Your task to perform on an android device: Open calendar and show me the third week of next month Image 0: 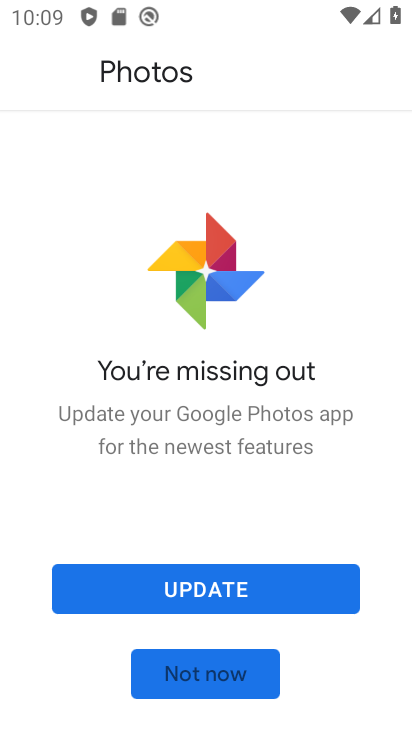
Step 0: press home button
Your task to perform on an android device: Open calendar and show me the third week of next month Image 1: 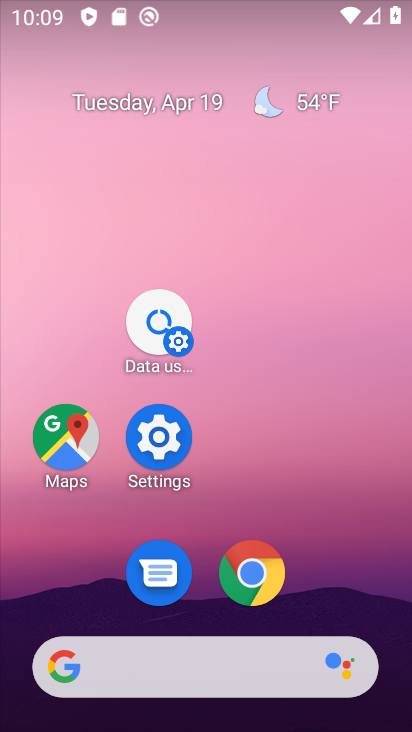
Step 1: drag from (397, 613) to (367, 3)
Your task to perform on an android device: Open calendar and show me the third week of next month Image 2: 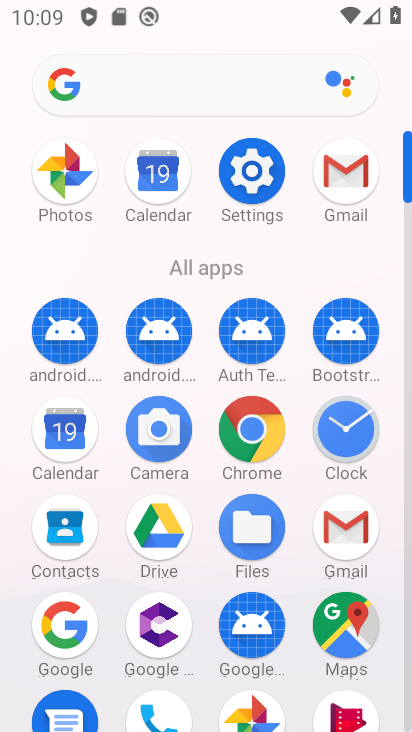
Step 2: click (58, 445)
Your task to perform on an android device: Open calendar and show me the third week of next month Image 3: 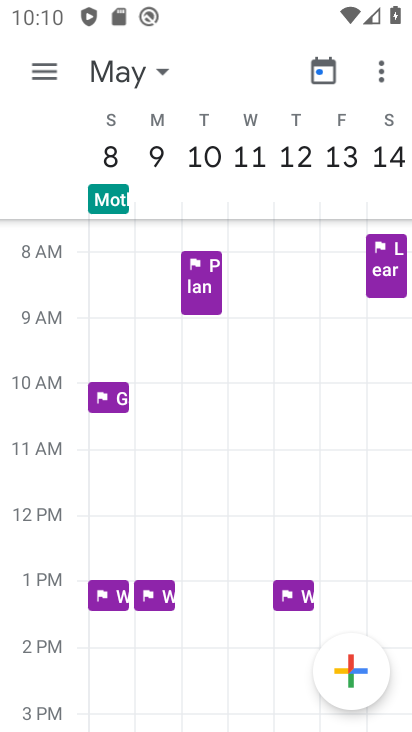
Step 3: task complete